Your task to perform on an android device: open app "Microsoft Outlook" (install if not already installed) Image 0: 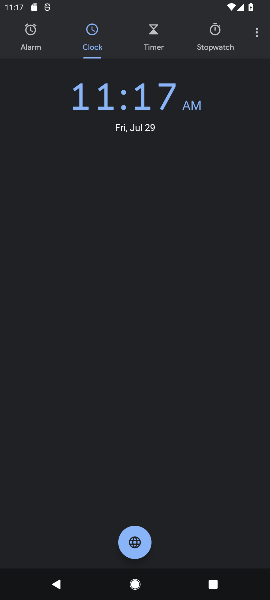
Step 0: press home button
Your task to perform on an android device: open app "Microsoft Outlook" (install if not already installed) Image 1: 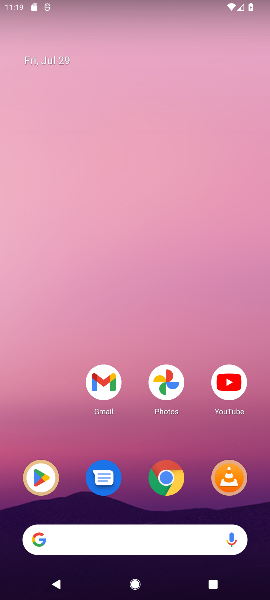
Step 1: click (43, 471)
Your task to perform on an android device: open app "Microsoft Outlook" (install if not already installed) Image 2: 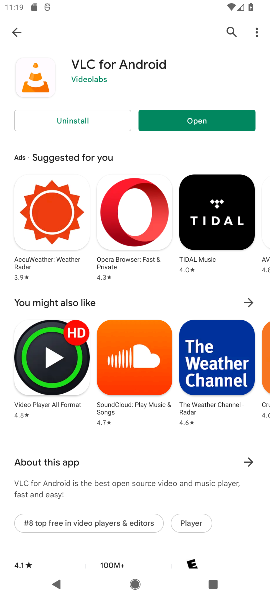
Step 2: click (16, 30)
Your task to perform on an android device: open app "Microsoft Outlook" (install if not already installed) Image 3: 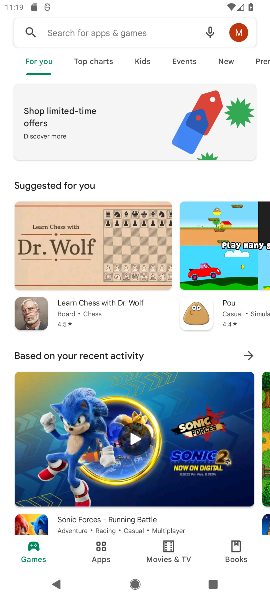
Step 3: click (75, 31)
Your task to perform on an android device: open app "Microsoft Outlook" (install if not already installed) Image 4: 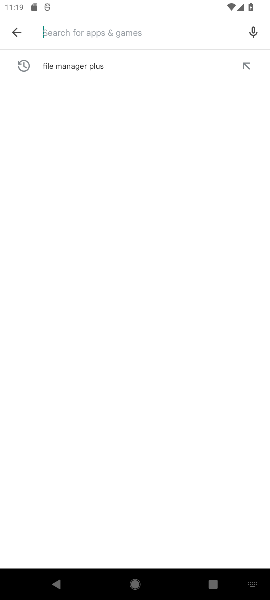
Step 4: type "Microsoft Outlook"
Your task to perform on an android device: open app "Microsoft Outlook" (install if not already installed) Image 5: 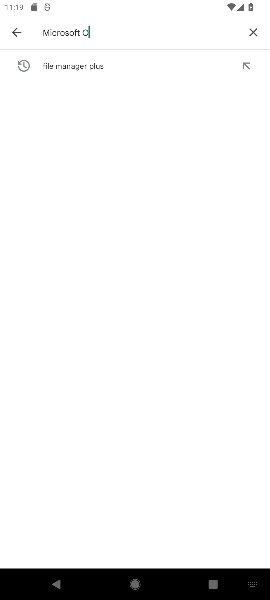
Step 5: type ""
Your task to perform on an android device: open app "Microsoft Outlook" (install if not already installed) Image 6: 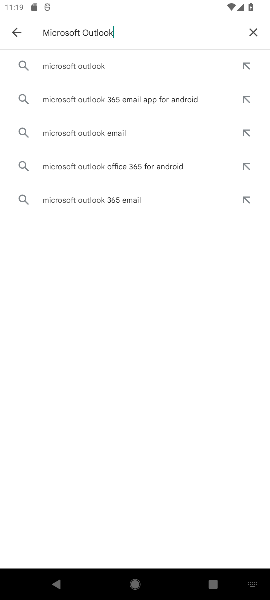
Step 6: click (80, 63)
Your task to perform on an android device: open app "Microsoft Outlook" (install if not already installed) Image 7: 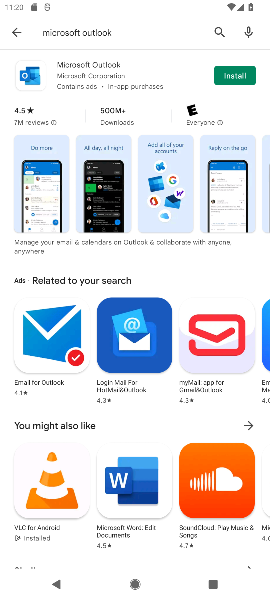
Step 7: click (247, 71)
Your task to perform on an android device: open app "Microsoft Outlook" (install if not already installed) Image 8: 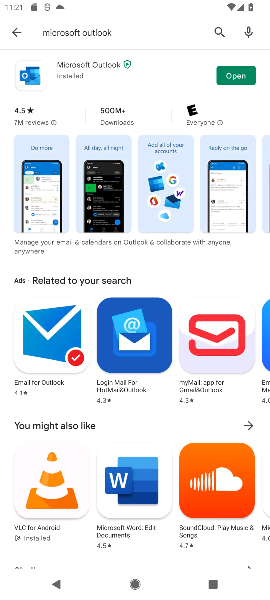
Step 8: click (229, 75)
Your task to perform on an android device: open app "Microsoft Outlook" (install if not already installed) Image 9: 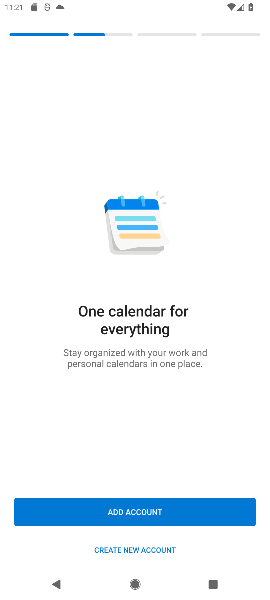
Step 9: task complete